Your task to perform on an android device: toggle wifi Image 0: 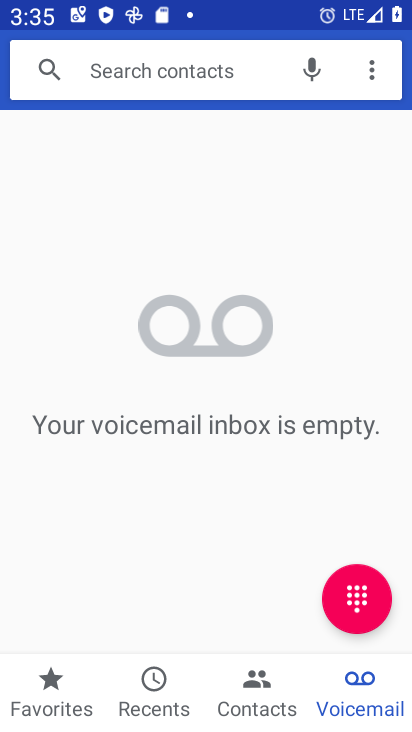
Step 0: press back button
Your task to perform on an android device: toggle wifi Image 1: 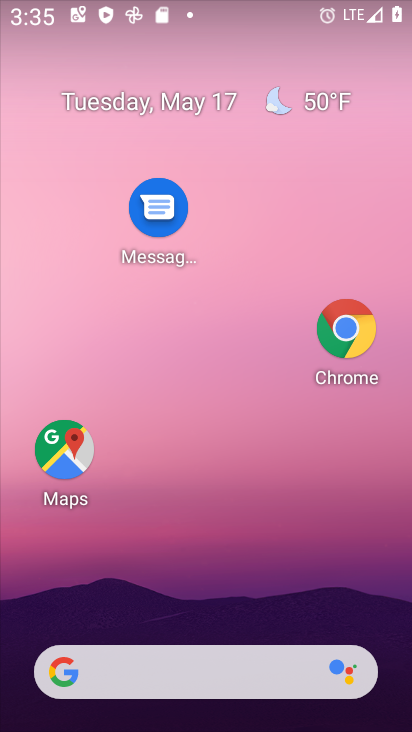
Step 1: drag from (233, 527) to (300, 118)
Your task to perform on an android device: toggle wifi Image 2: 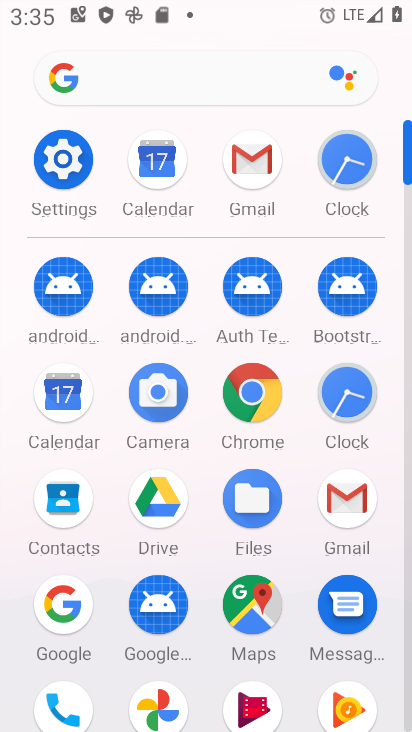
Step 2: click (56, 183)
Your task to perform on an android device: toggle wifi Image 3: 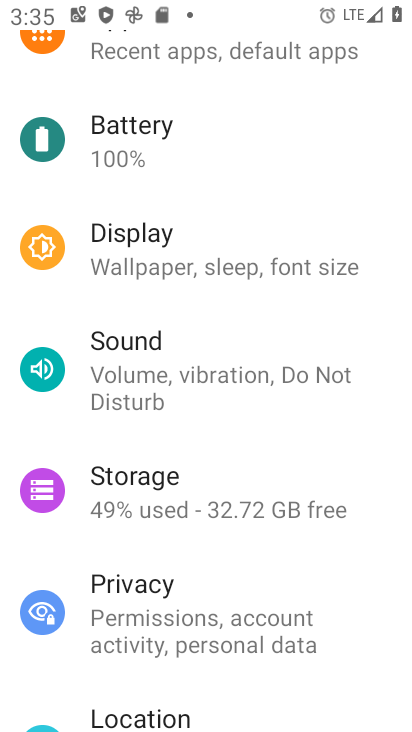
Step 3: drag from (240, 94) to (175, 547)
Your task to perform on an android device: toggle wifi Image 4: 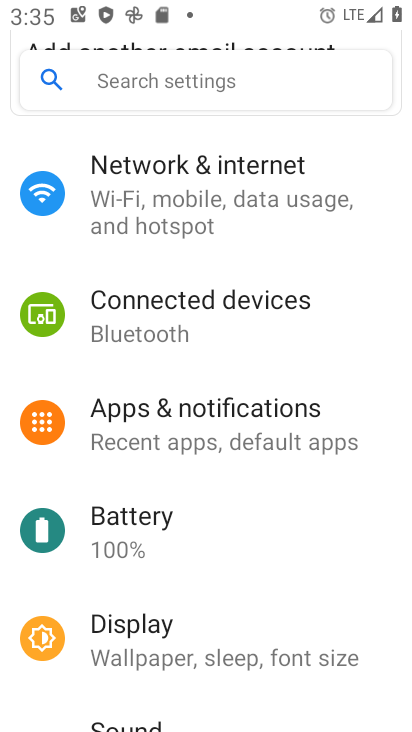
Step 4: click (246, 188)
Your task to perform on an android device: toggle wifi Image 5: 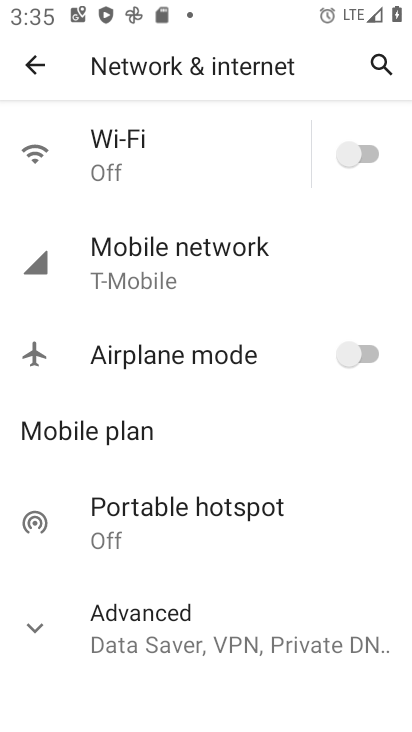
Step 5: click (346, 172)
Your task to perform on an android device: toggle wifi Image 6: 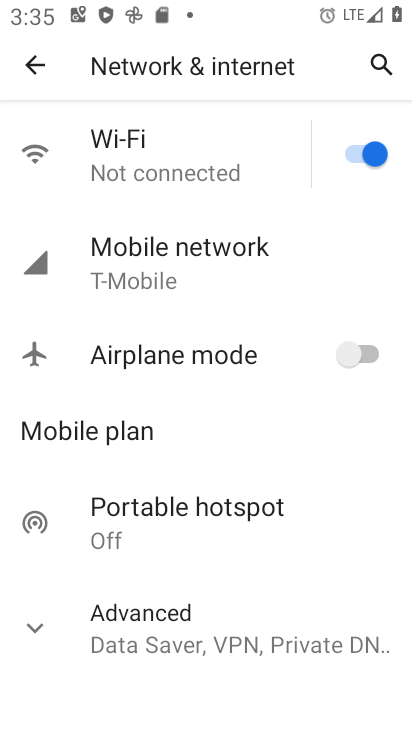
Step 6: task complete